Your task to perform on an android device: open a bookmark in the chrome app Image 0: 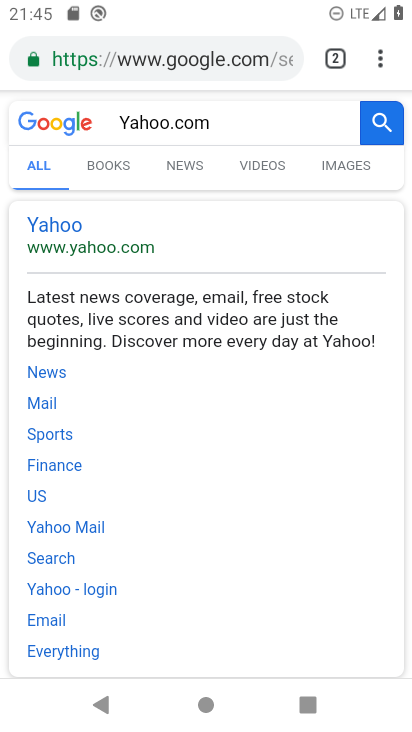
Step 0: click (381, 59)
Your task to perform on an android device: open a bookmark in the chrome app Image 1: 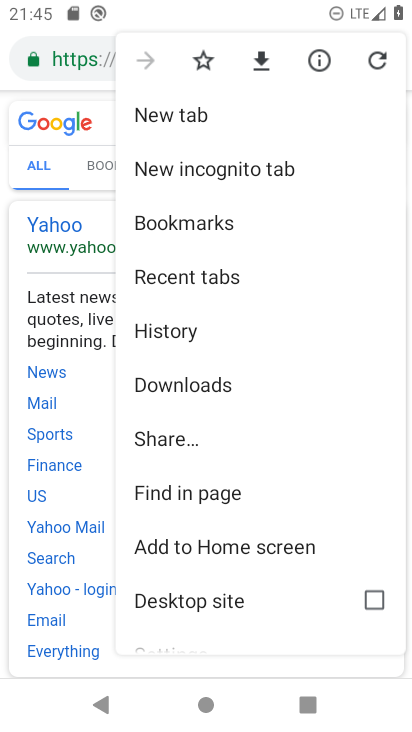
Step 1: drag from (218, 585) to (232, 330)
Your task to perform on an android device: open a bookmark in the chrome app Image 2: 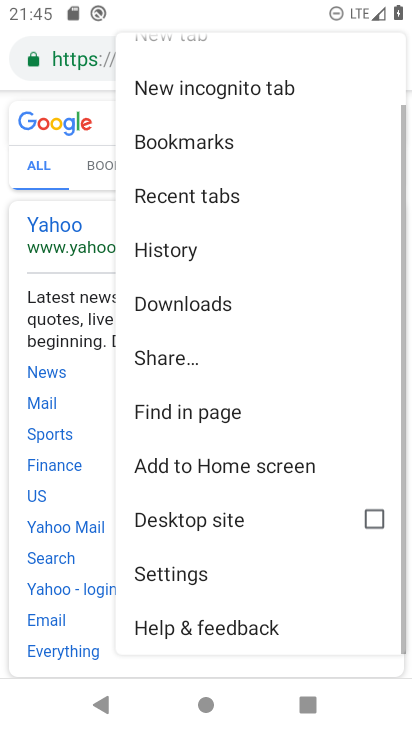
Step 2: click (193, 574)
Your task to perform on an android device: open a bookmark in the chrome app Image 3: 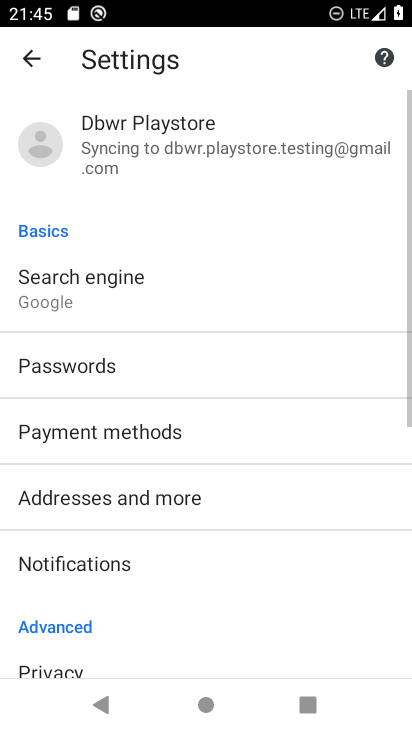
Step 3: drag from (213, 612) to (221, 316)
Your task to perform on an android device: open a bookmark in the chrome app Image 4: 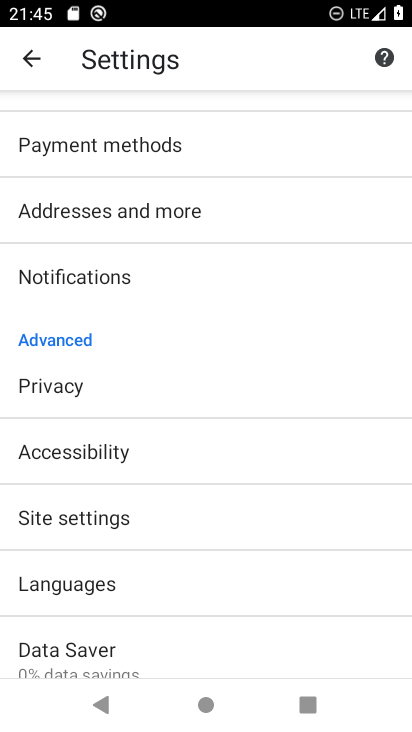
Step 4: drag from (214, 606) to (220, 354)
Your task to perform on an android device: open a bookmark in the chrome app Image 5: 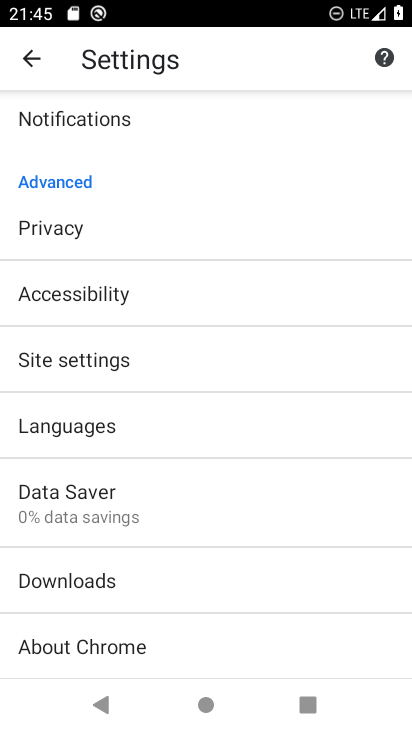
Step 5: click (22, 50)
Your task to perform on an android device: open a bookmark in the chrome app Image 6: 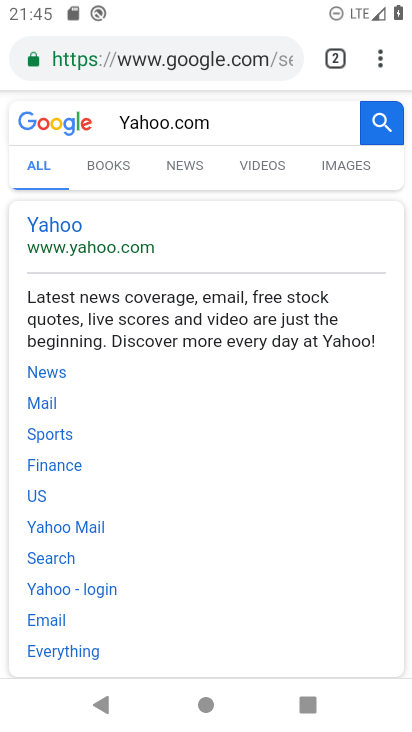
Step 6: click (381, 54)
Your task to perform on an android device: open a bookmark in the chrome app Image 7: 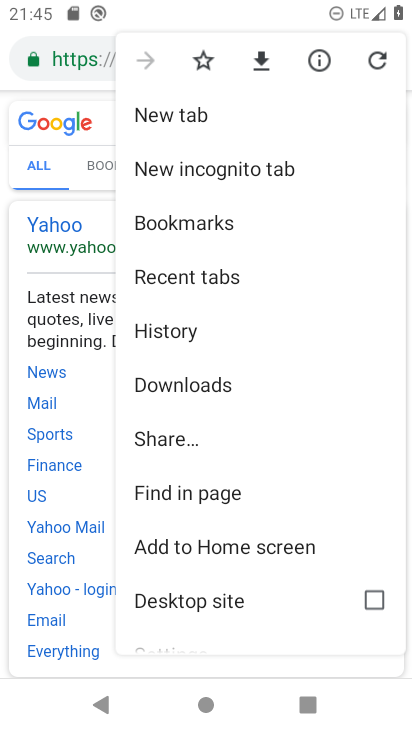
Step 7: click (192, 225)
Your task to perform on an android device: open a bookmark in the chrome app Image 8: 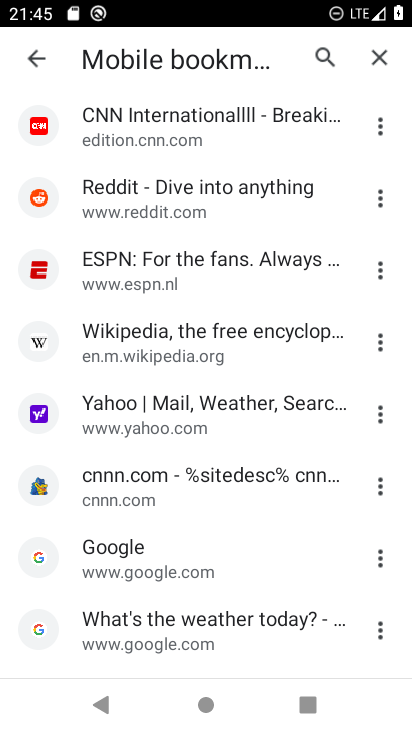
Step 8: click (126, 409)
Your task to perform on an android device: open a bookmark in the chrome app Image 9: 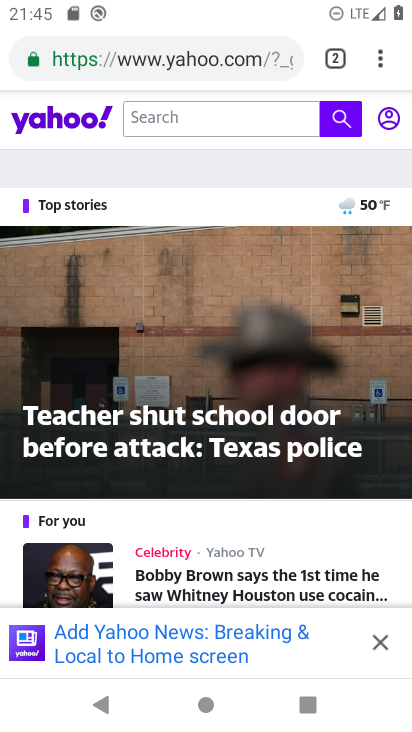
Step 9: task complete